Your task to perform on an android device: Show me popular games on the Play Store Image 0: 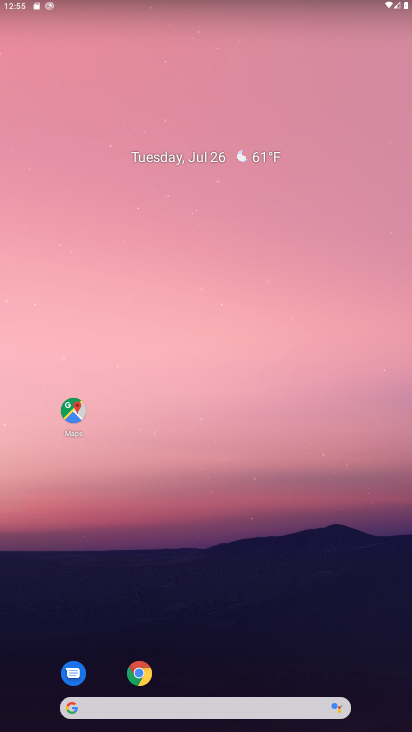
Step 0: drag from (188, 605) to (240, 4)
Your task to perform on an android device: Show me popular games on the Play Store Image 1: 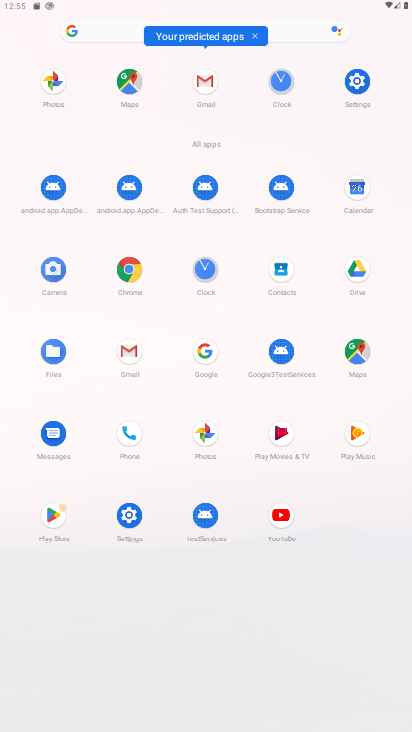
Step 1: click (59, 505)
Your task to perform on an android device: Show me popular games on the Play Store Image 2: 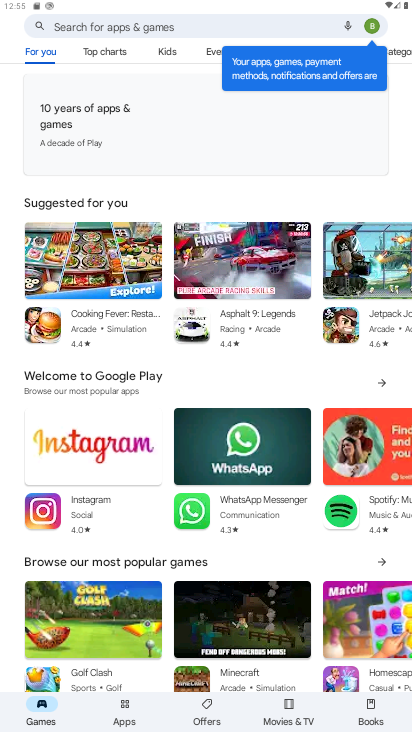
Step 2: click (115, 57)
Your task to perform on an android device: Show me popular games on the Play Store Image 3: 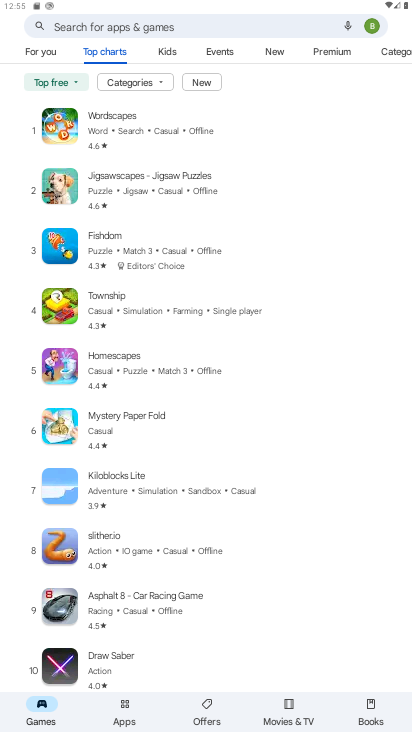
Step 3: task complete